Your task to perform on an android device: find snoozed emails in the gmail app Image 0: 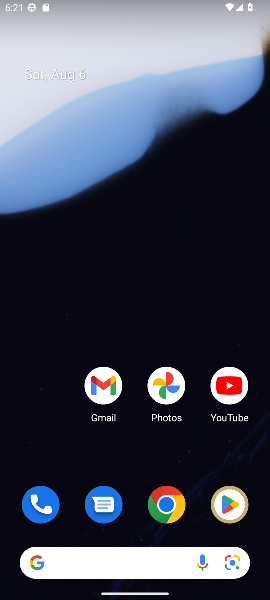
Step 0: drag from (119, 572) to (163, 334)
Your task to perform on an android device: find snoozed emails in the gmail app Image 1: 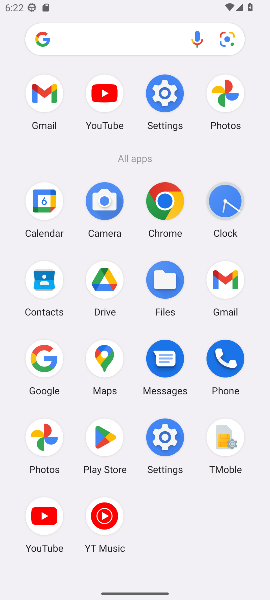
Step 1: click (43, 96)
Your task to perform on an android device: find snoozed emails in the gmail app Image 2: 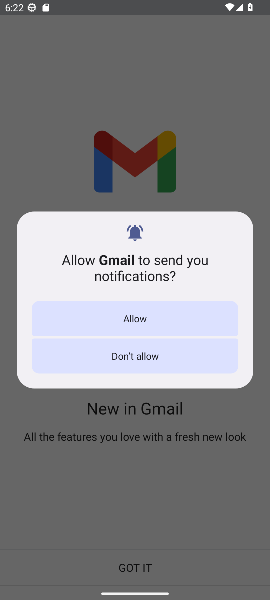
Step 2: click (135, 312)
Your task to perform on an android device: find snoozed emails in the gmail app Image 3: 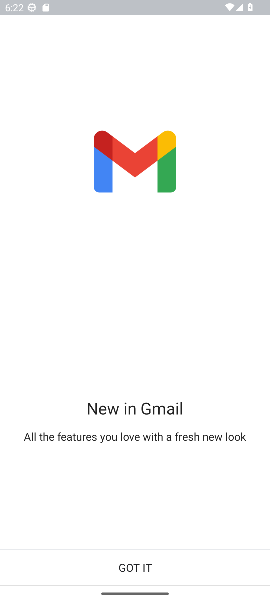
Step 3: click (129, 568)
Your task to perform on an android device: find snoozed emails in the gmail app Image 4: 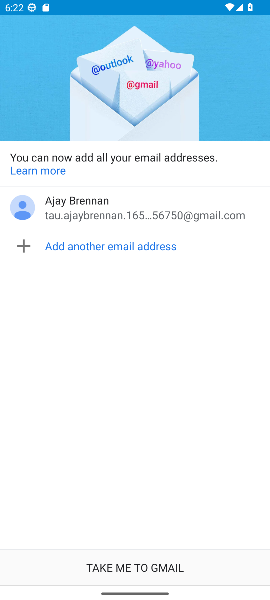
Step 4: click (129, 568)
Your task to perform on an android device: find snoozed emails in the gmail app Image 5: 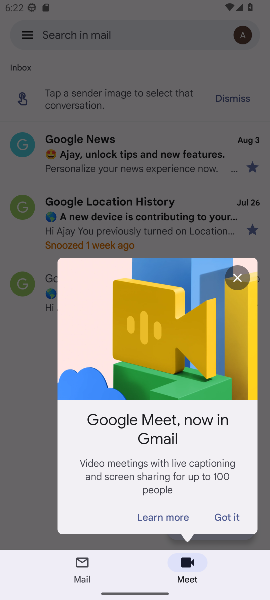
Step 5: click (242, 518)
Your task to perform on an android device: find snoozed emails in the gmail app Image 6: 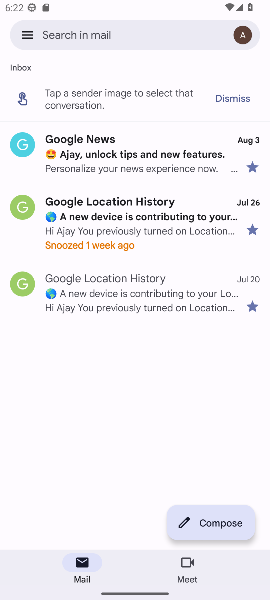
Step 6: click (118, 247)
Your task to perform on an android device: find snoozed emails in the gmail app Image 7: 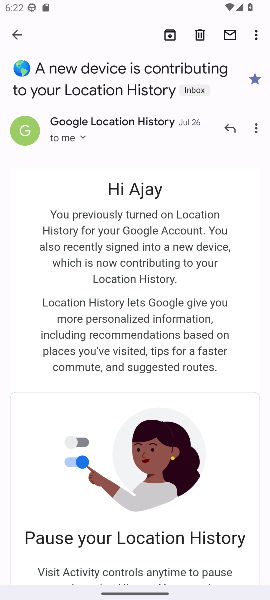
Step 7: task complete